Your task to perform on an android device: Check the weather Image 0: 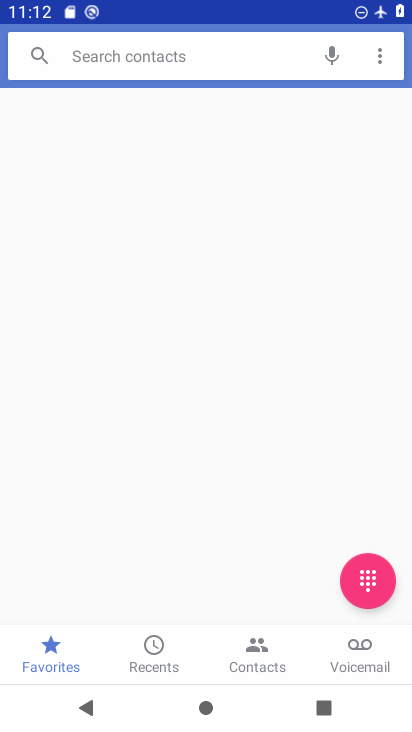
Step 0: drag from (256, 495) to (243, 227)
Your task to perform on an android device: Check the weather Image 1: 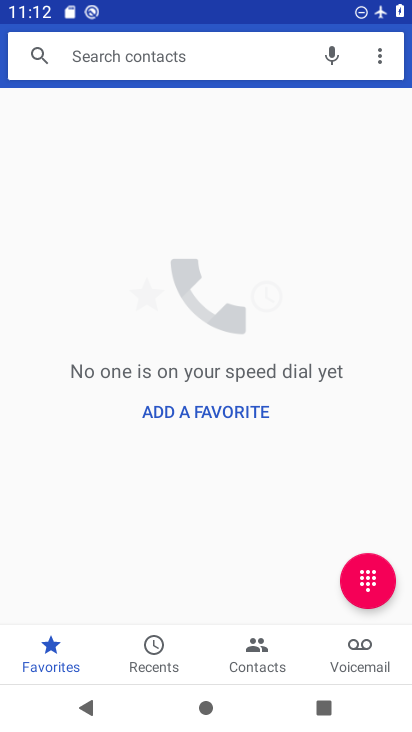
Step 1: click (244, 220)
Your task to perform on an android device: Check the weather Image 2: 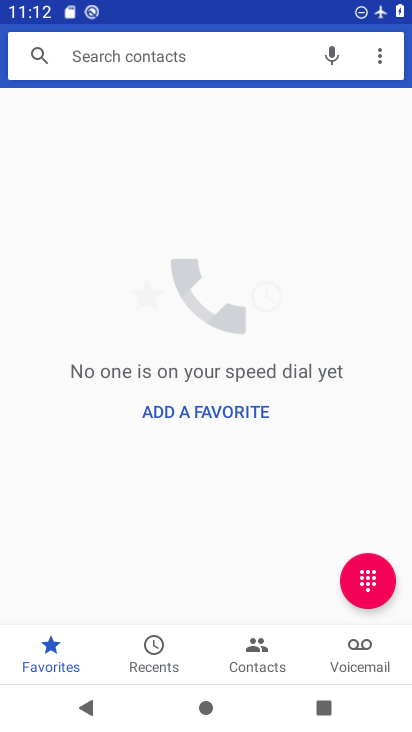
Step 2: drag from (163, 4) to (213, 505)
Your task to perform on an android device: Check the weather Image 3: 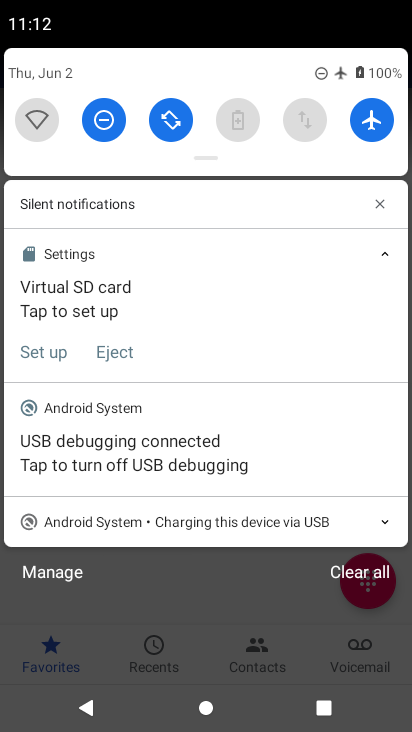
Step 3: press home button
Your task to perform on an android device: Check the weather Image 4: 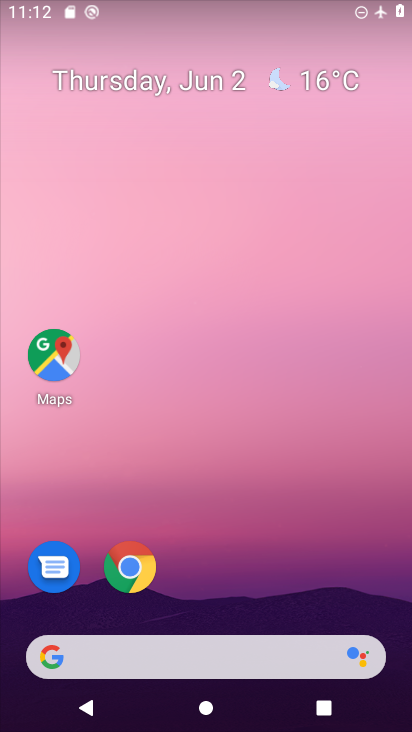
Step 4: click (339, 79)
Your task to perform on an android device: Check the weather Image 5: 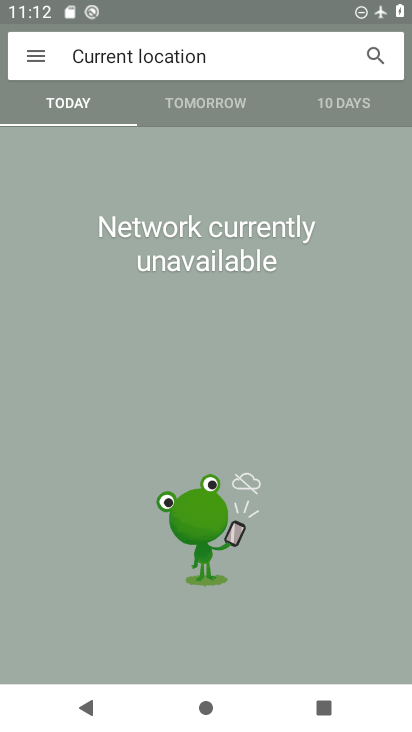
Step 5: task complete